Your task to perform on an android device: Search for the new lego star wars 2021 on Target Image 0: 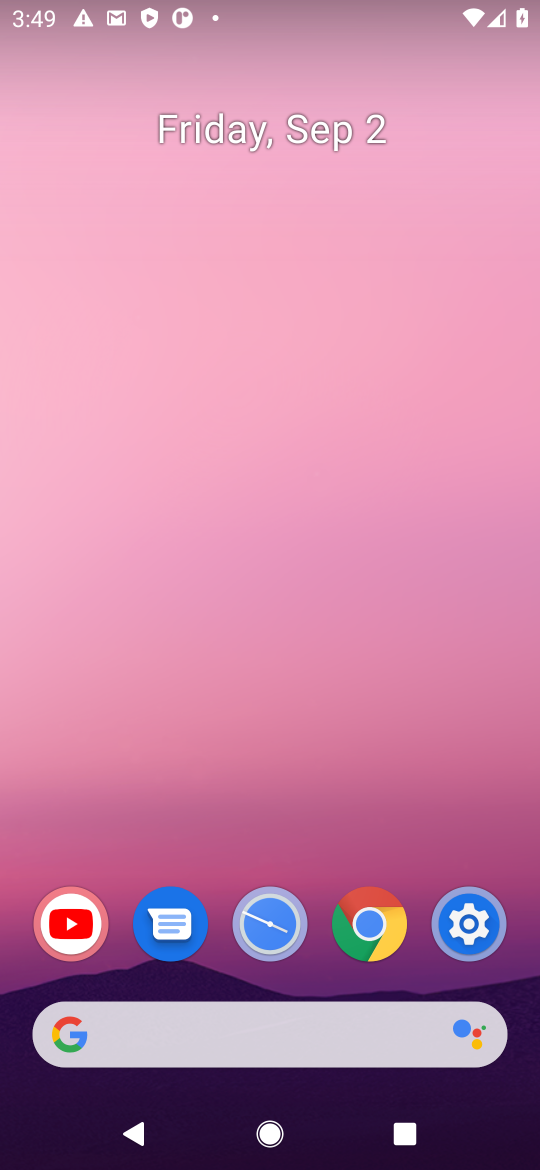
Step 0: press home button
Your task to perform on an android device: Search for the new lego star wars 2021 on Target Image 1: 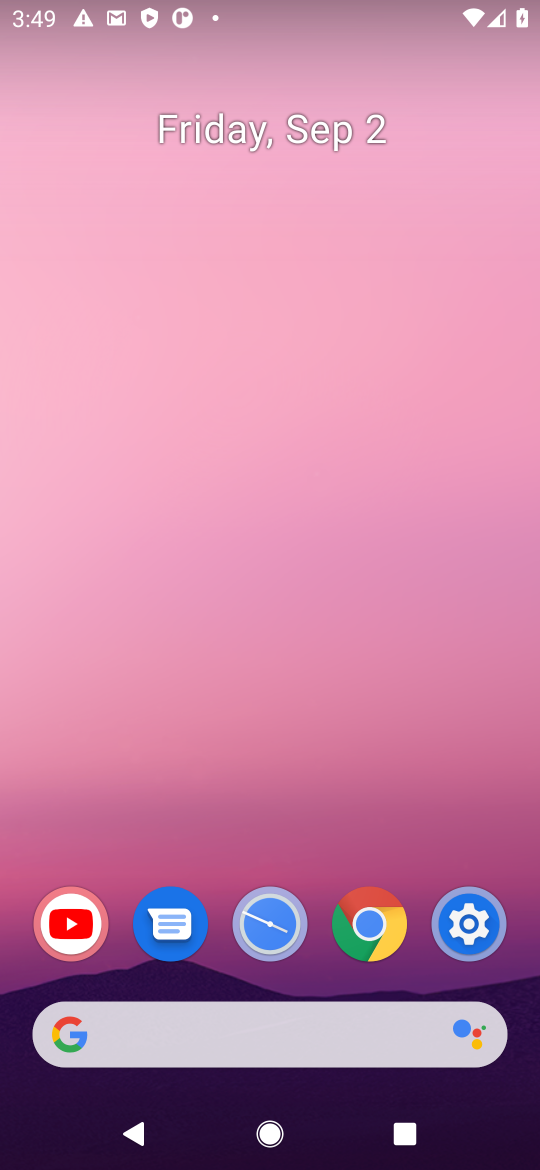
Step 1: click (381, 1035)
Your task to perform on an android device: Search for the new lego star wars 2021 on Target Image 2: 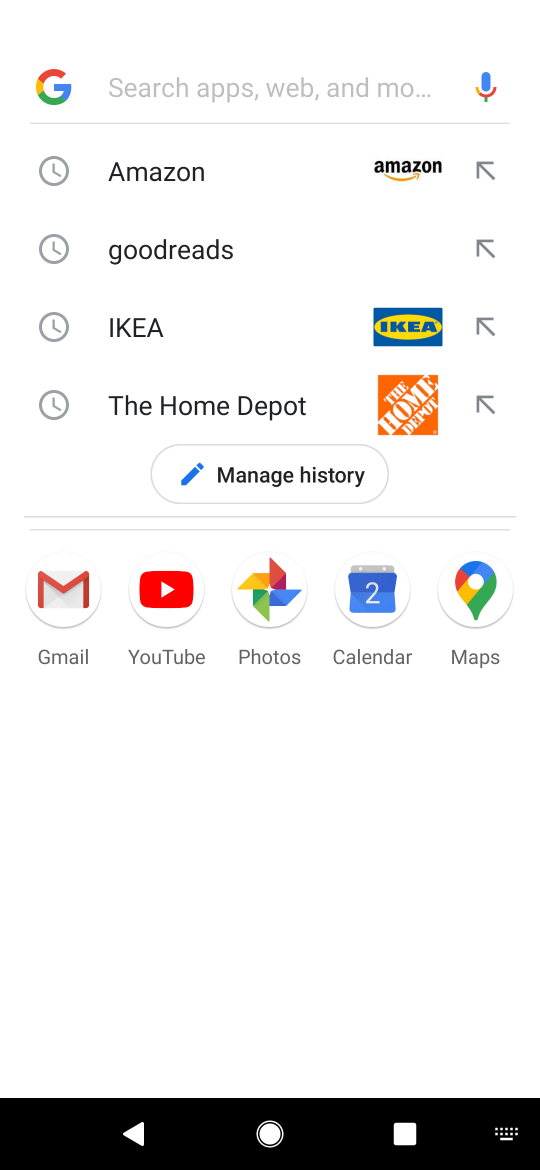
Step 2: press enter
Your task to perform on an android device: Search for the new lego star wars 2021 on Target Image 3: 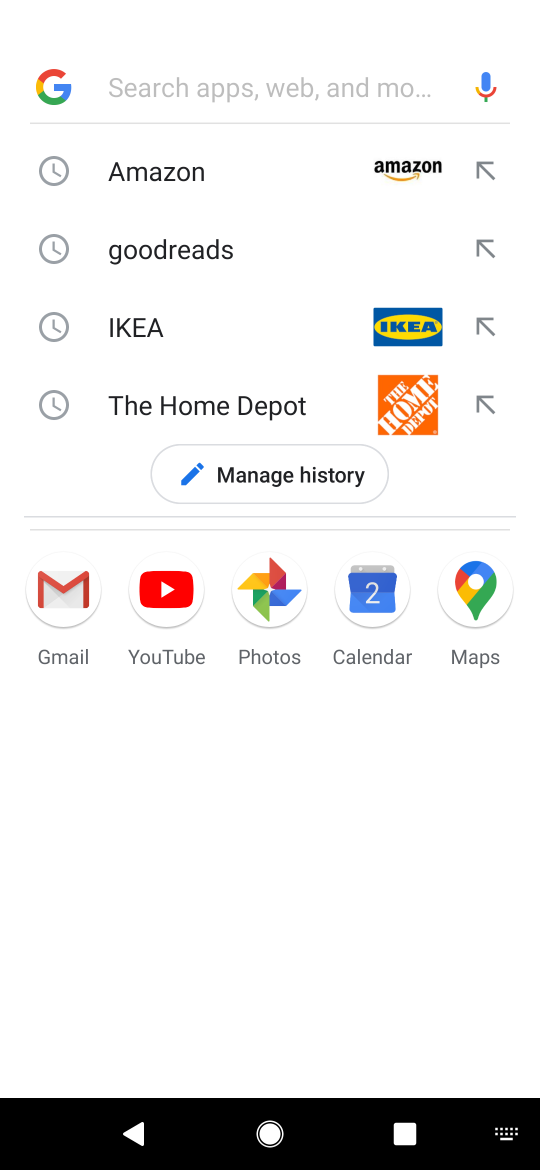
Step 3: type "target"
Your task to perform on an android device: Search for the new lego star wars 2021 on Target Image 4: 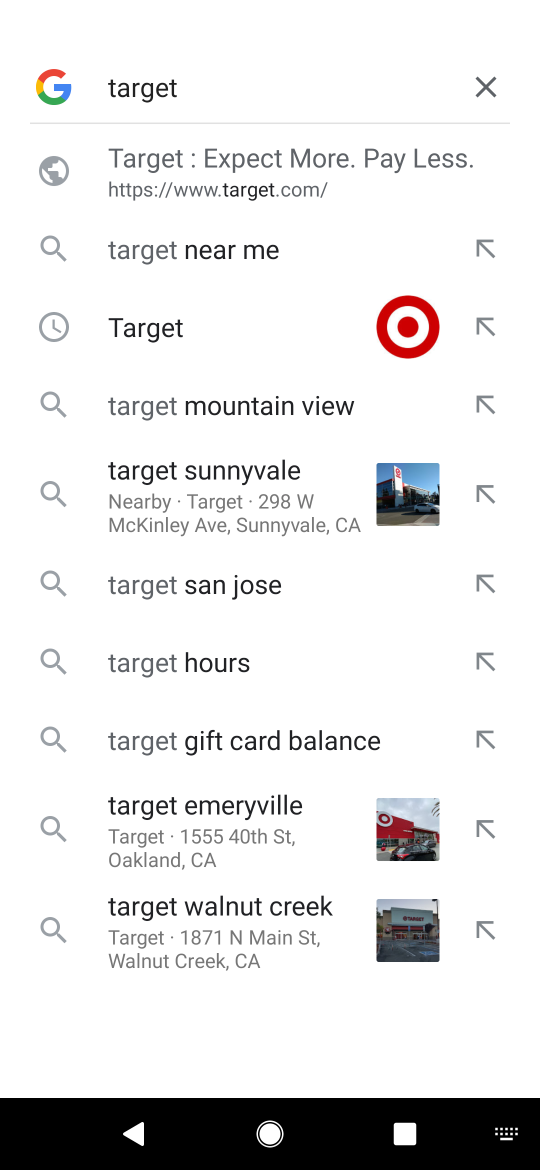
Step 4: click (234, 324)
Your task to perform on an android device: Search for the new lego star wars 2021 on Target Image 5: 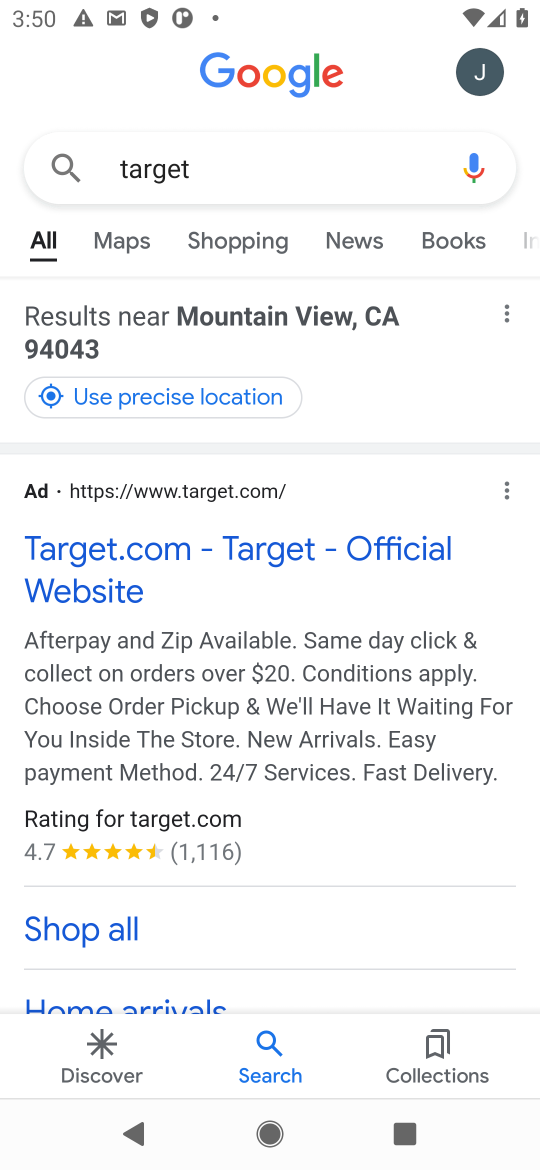
Step 5: click (287, 550)
Your task to perform on an android device: Search for the new lego star wars 2021 on Target Image 6: 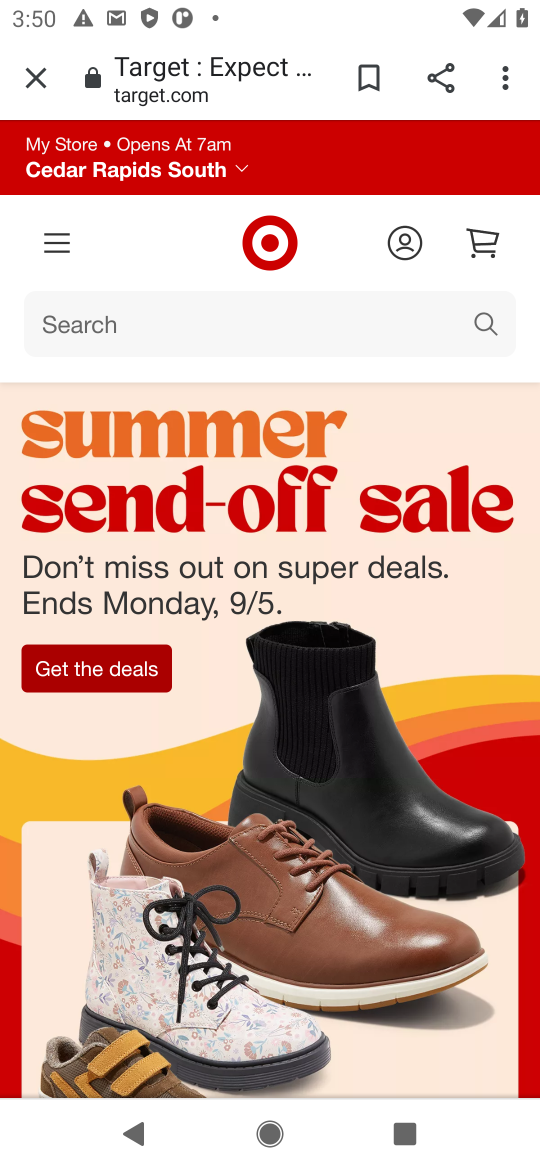
Step 6: click (177, 322)
Your task to perform on an android device: Search for the new lego star wars 2021 on Target Image 7: 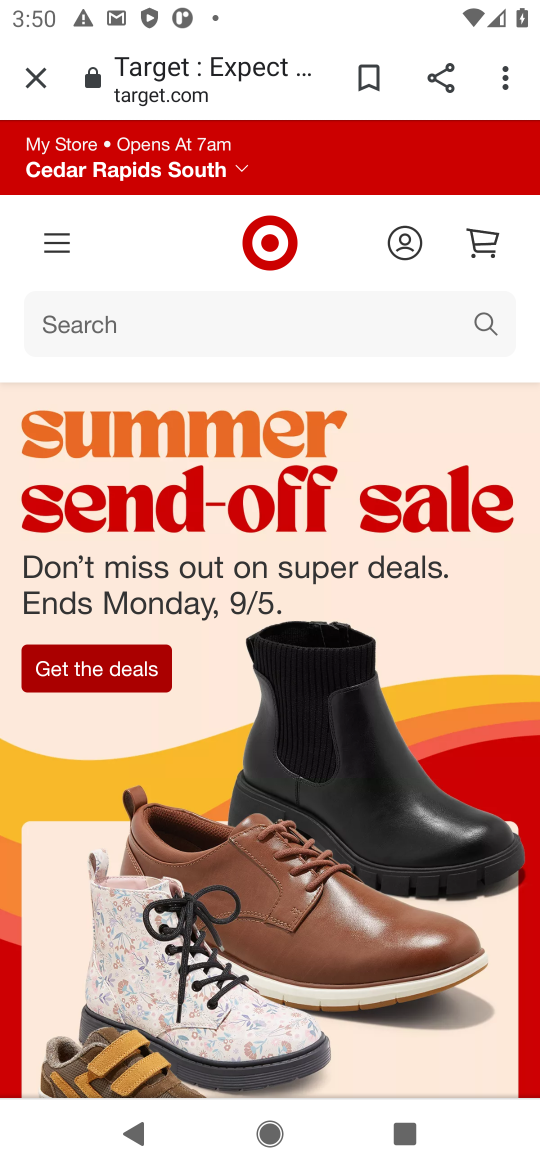
Step 7: click (112, 317)
Your task to perform on an android device: Search for the new lego star wars 2021 on Target Image 8: 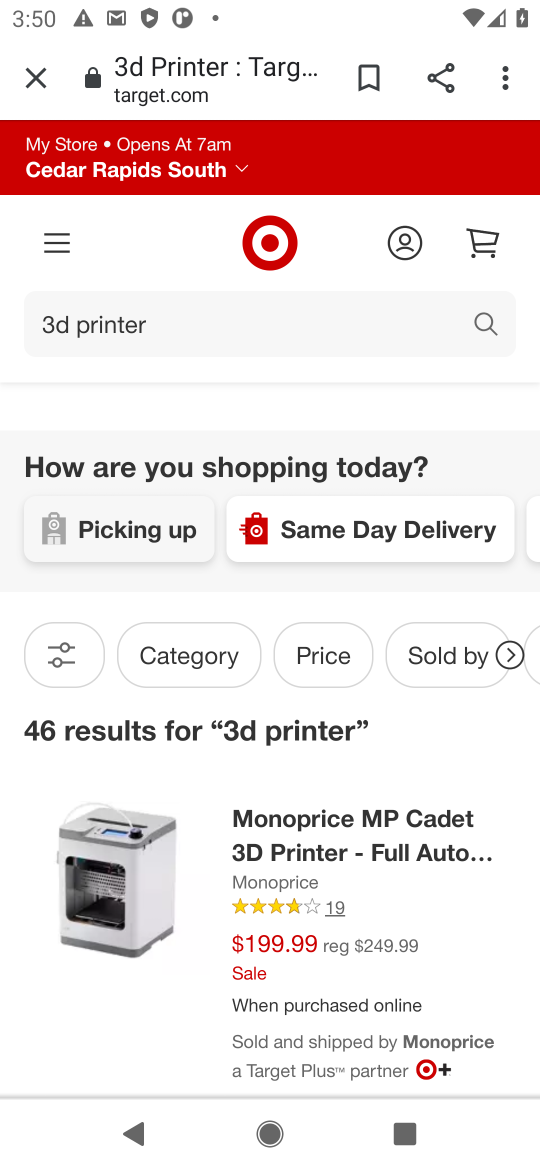
Step 8: click (341, 331)
Your task to perform on an android device: Search for the new lego star wars 2021 on Target Image 9: 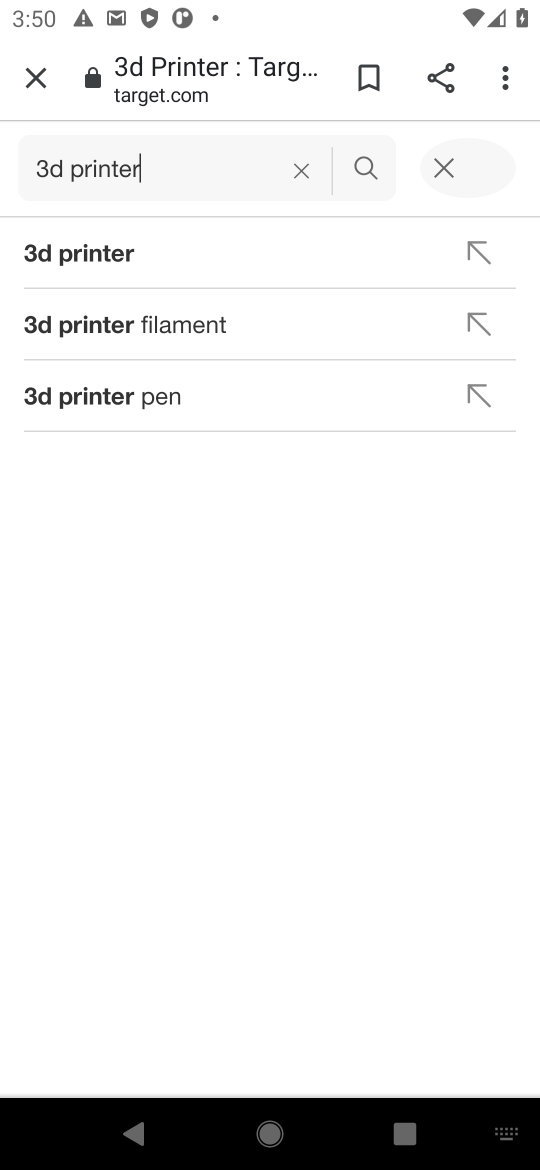
Step 9: click (299, 157)
Your task to perform on an android device: Search for the new lego star wars 2021 on Target Image 10: 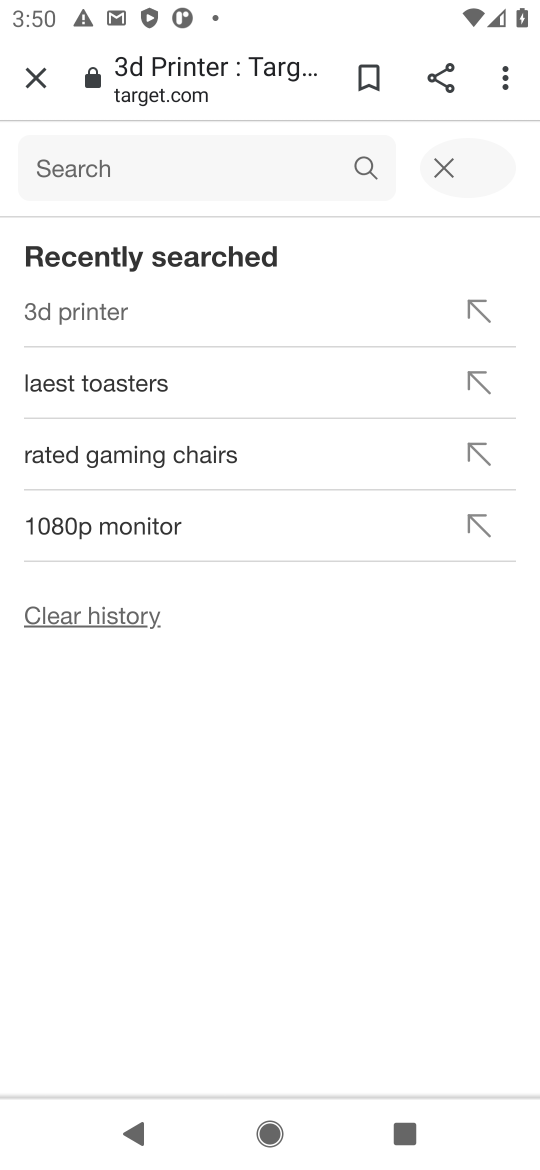
Step 10: type "new lego star wars 2021"
Your task to perform on an android device: Search for the new lego star wars 2021 on Target Image 11: 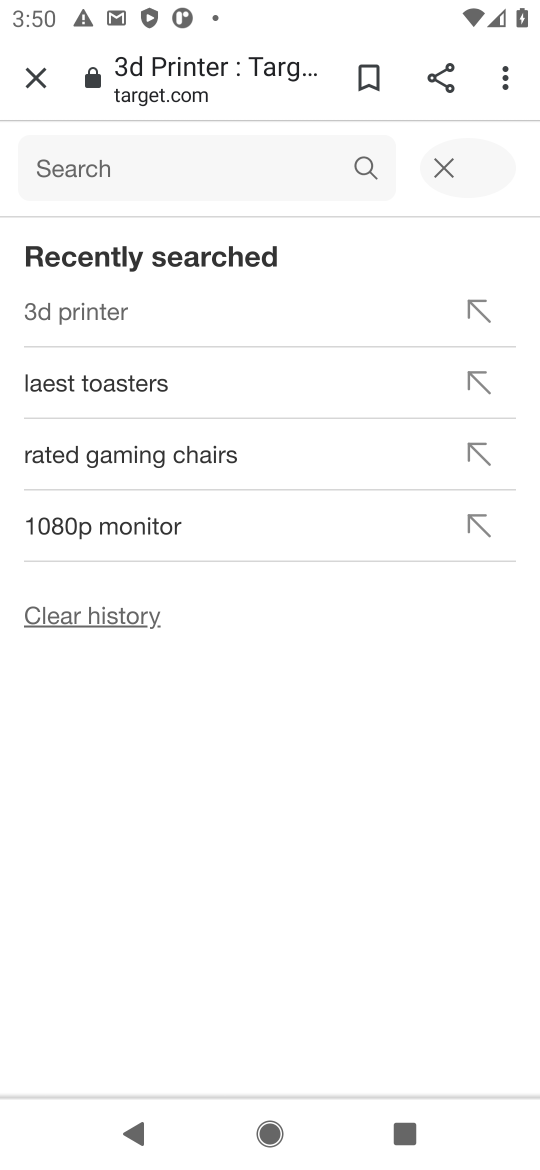
Step 11: task complete